Your task to perform on an android device: turn on improve location accuracy Image 0: 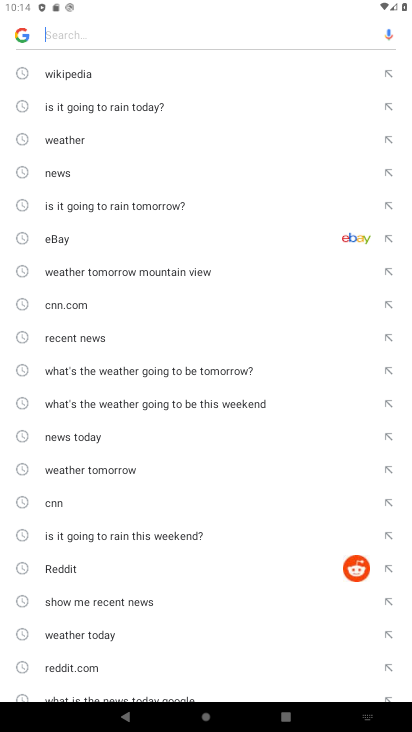
Step 0: press home button
Your task to perform on an android device: turn on improve location accuracy Image 1: 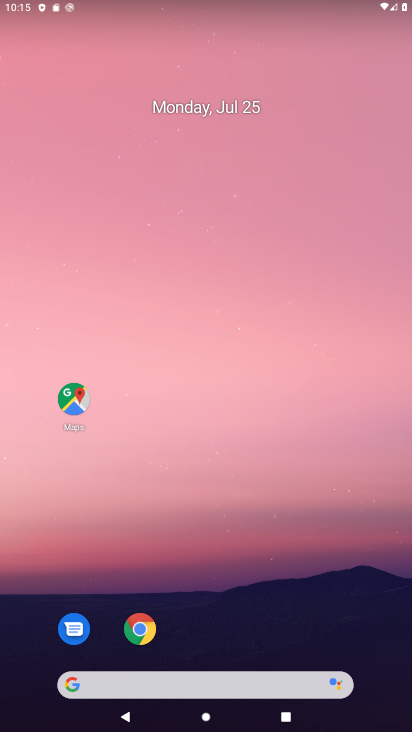
Step 1: drag from (216, 593) to (184, 4)
Your task to perform on an android device: turn on improve location accuracy Image 2: 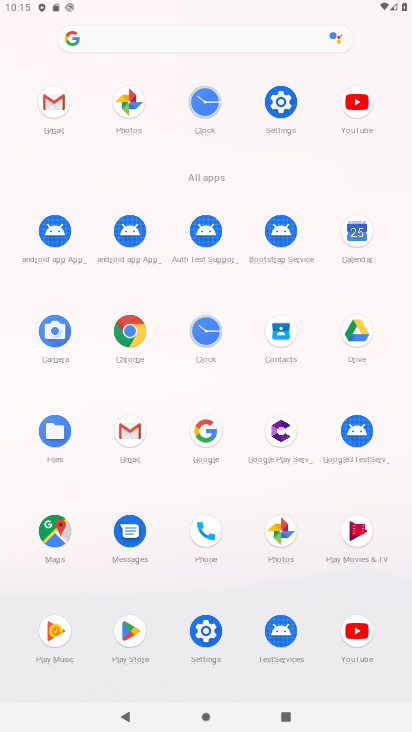
Step 2: click (276, 104)
Your task to perform on an android device: turn on improve location accuracy Image 3: 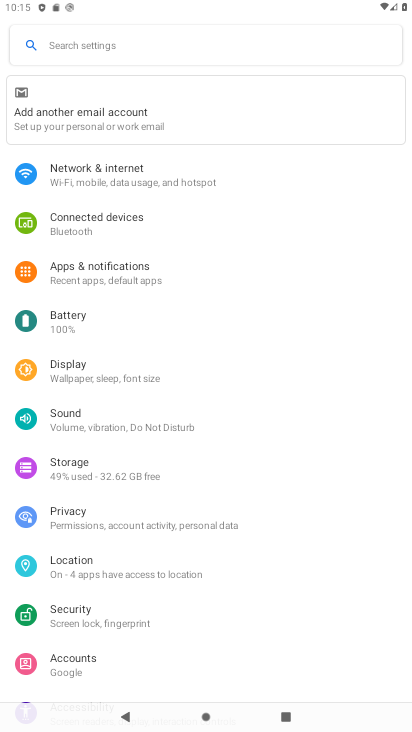
Step 3: click (62, 565)
Your task to perform on an android device: turn on improve location accuracy Image 4: 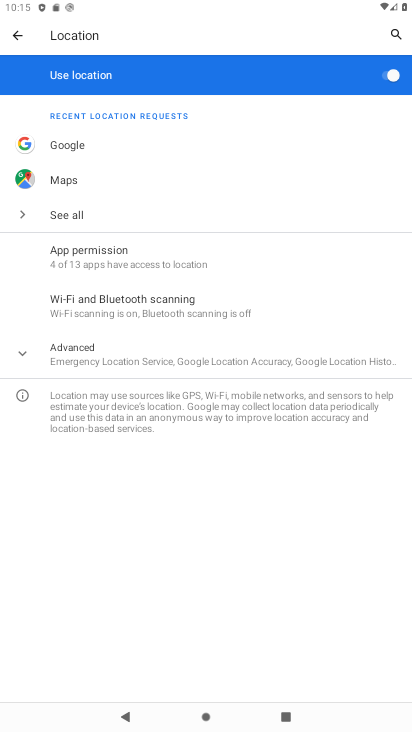
Step 4: click (23, 355)
Your task to perform on an android device: turn on improve location accuracy Image 5: 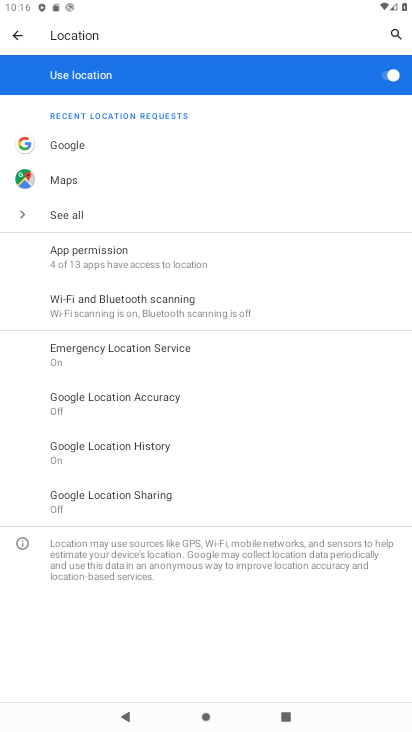
Step 5: click (60, 402)
Your task to perform on an android device: turn on improve location accuracy Image 6: 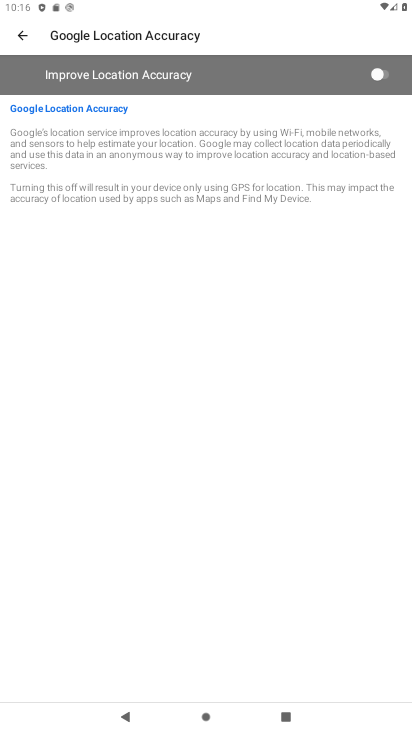
Step 6: click (379, 74)
Your task to perform on an android device: turn on improve location accuracy Image 7: 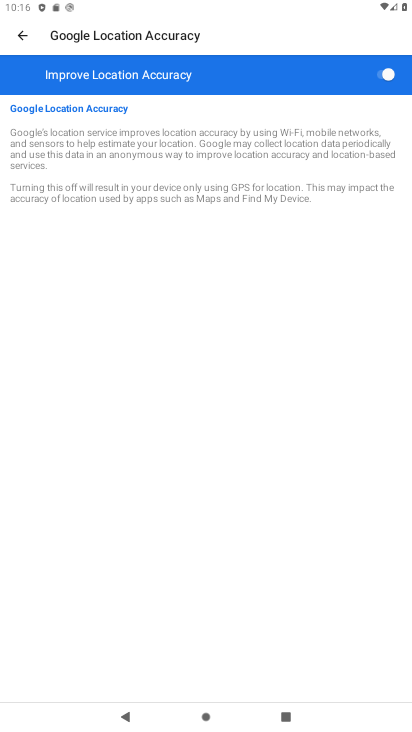
Step 7: task complete